Your task to perform on an android device: Open calendar and show me the third week of next month Image 0: 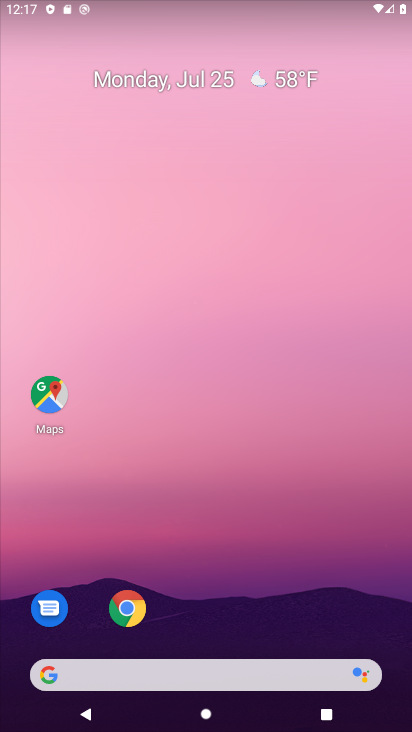
Step 0: drag from (348, 636) to (366, 40)
Your task to perform on an android device: Open calendar and show me the third week of next month Image 1: 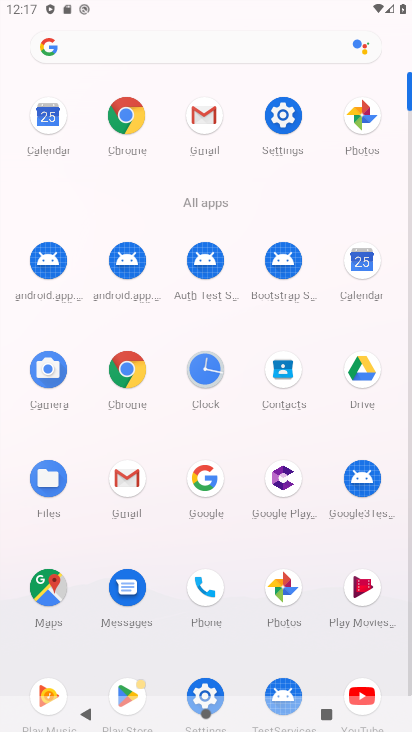
Step 1: click (352, 262)
Your task to perform on an android device: Open calendar and show me the third week of next month Image 2: 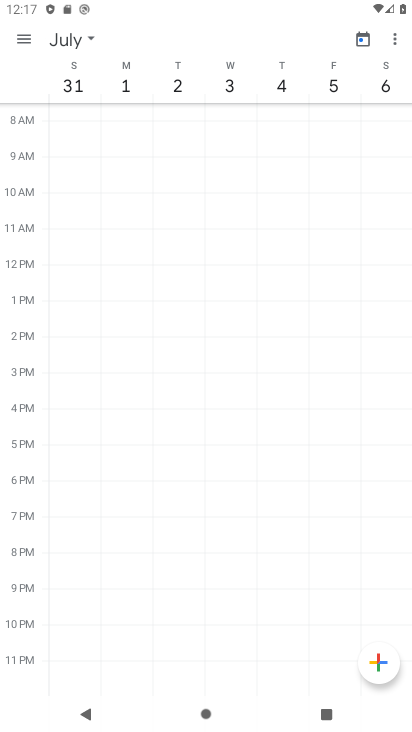
Step 2: click (75, 41)
Your task to perform on an android device: Open calendar and show me the third week of next month Image 3: 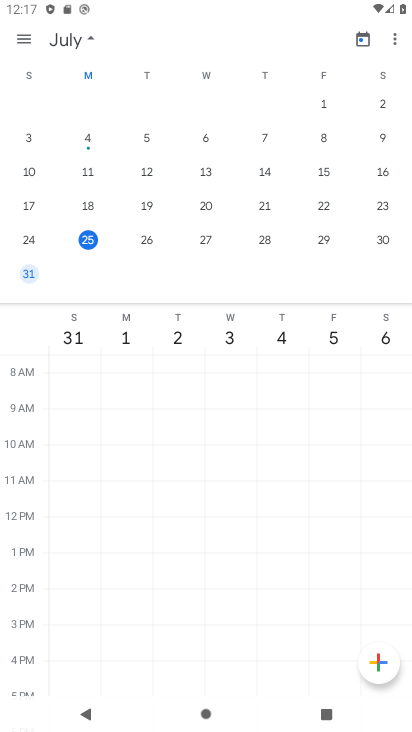
Step 3: drag from (371, 215) to (27, 203)
Your task to perform on an android device: Open calendar and show me the third week of next month Image 4: 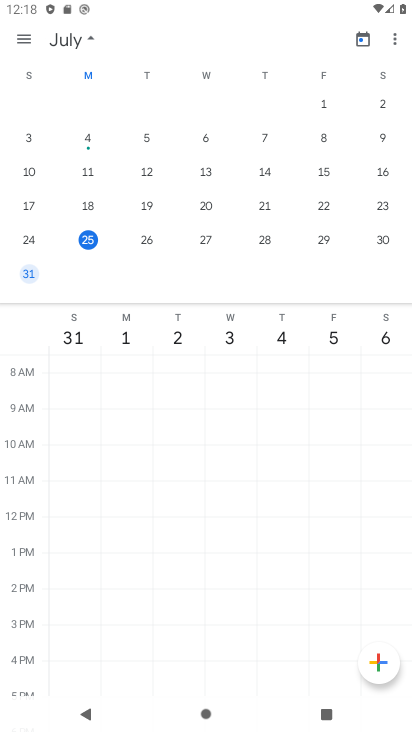
Step 4: drag from (387, 230) to (0, 164)
Your task to perform on an android device: Open calendar and show me the third week of next month Image 5: 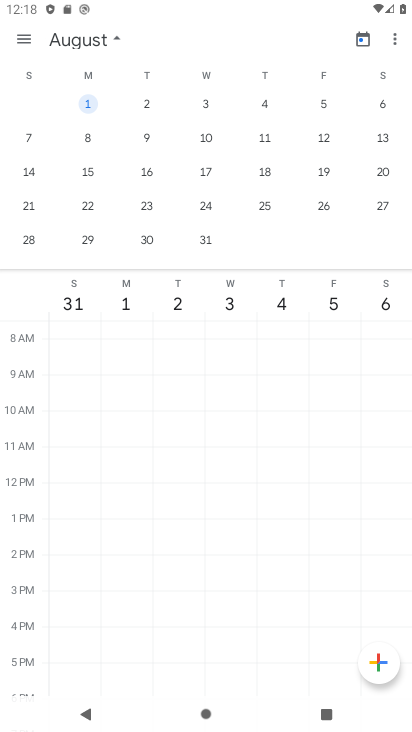
Step 5: click (93, 171)
Your task to perform on an android device: Open calendar and show me the third week of next month Image 6: 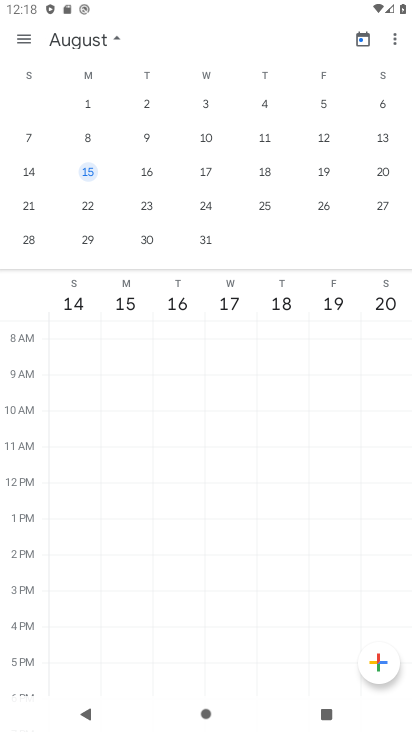
Step 6: task complete